Your task to perform on an android device: change timer sound Image 0: 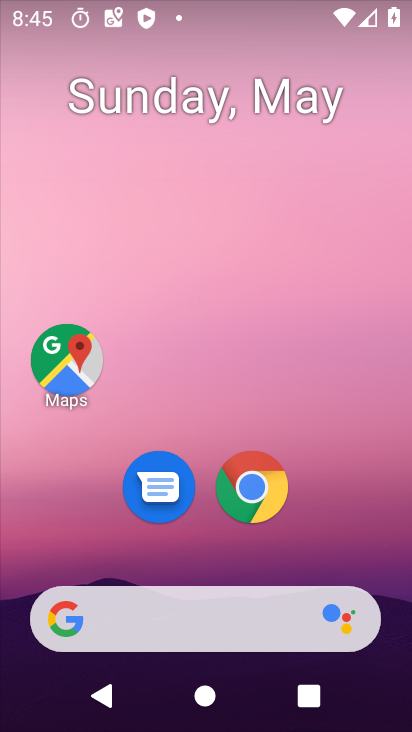
Step 0: drag from (155, 185) to (209, 74)
Your task to perform on an android device: change timer sound Image 1: 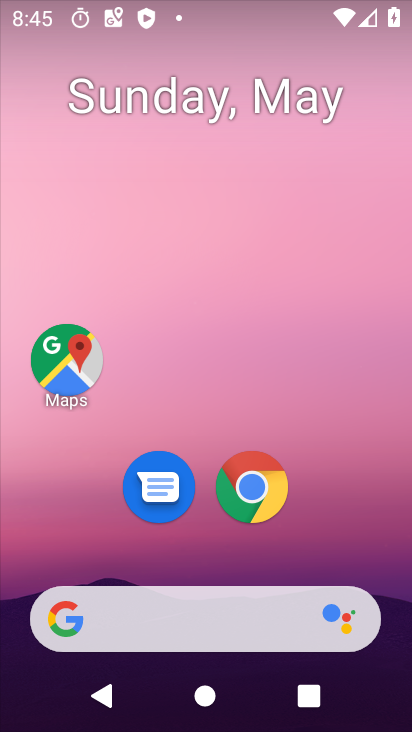
Step 1: drag from (139, 380) to (311, 6)
Your task to perform on an android device: change timer sound Image 2: 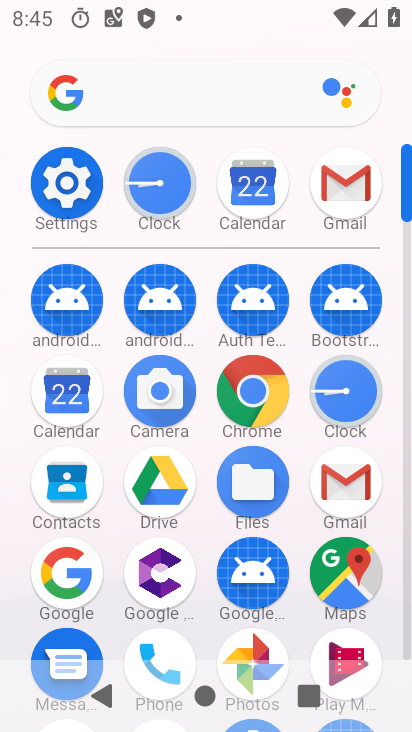
Step 2: click (79, 192)
Your task to perform on an android device: change timer sound Image 3: 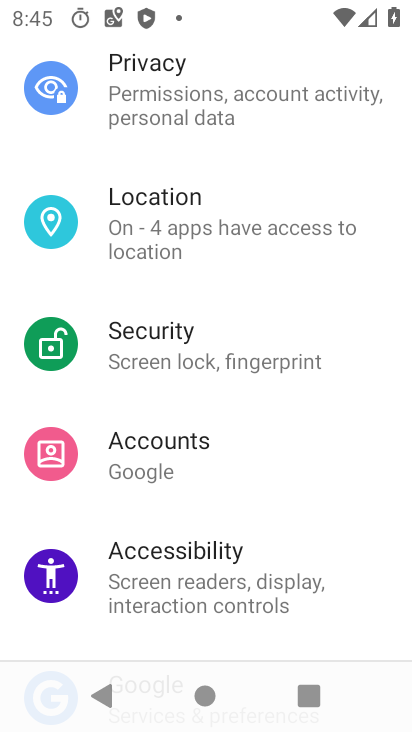
Step 3: press home button
Your task to perform on an android device: change timer sound Image 4: 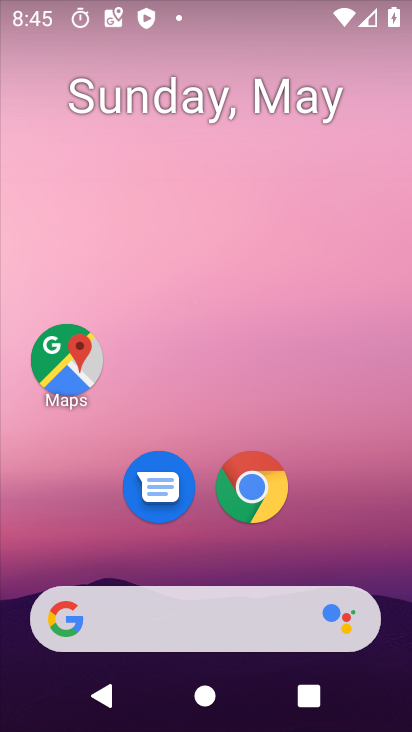
Step 4: drag from (61, 500) to (274, 146)
Your task to perform on an android device: change timer sound Image 5: 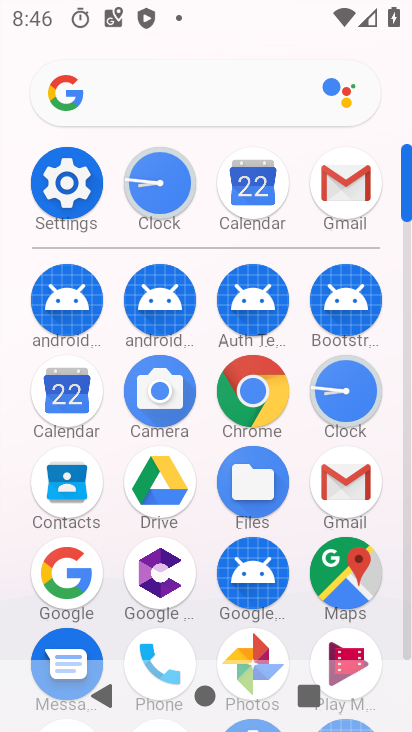
Step 5: click (339, 391)
Your task to perform on an android device: change timer sound Image 6: 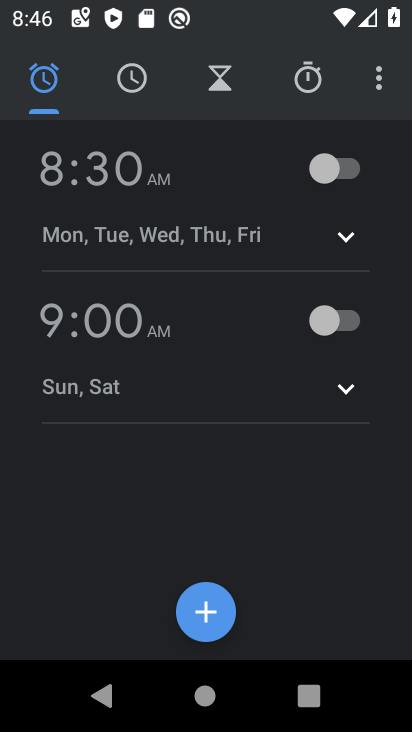
Step 6: click (384, 83)
Your task to perform on an android device: change timer sound Image 7: 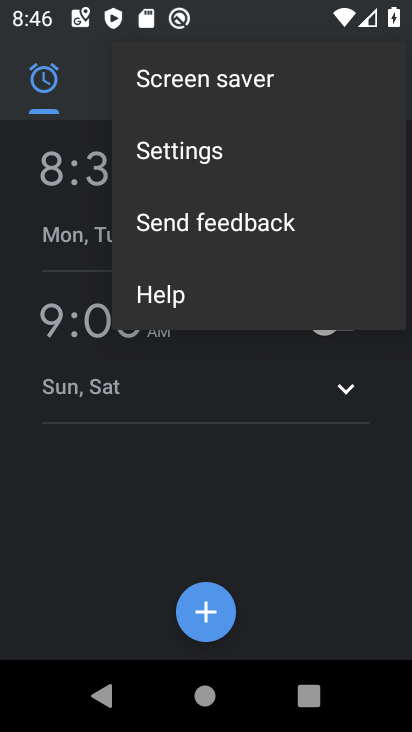
Step 7: click (143, 166)
Your task to perform on an android device: change timer sound Image 8: 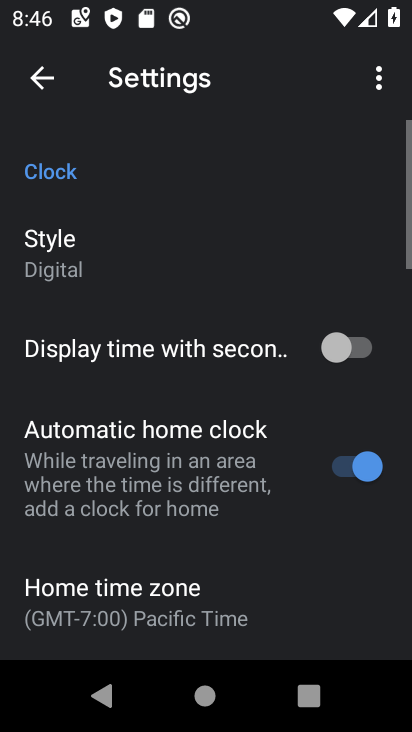
Step 8: drag from (121, 340) to (288, 79)
Your task to perform on an android device: change timer sound Image 9: 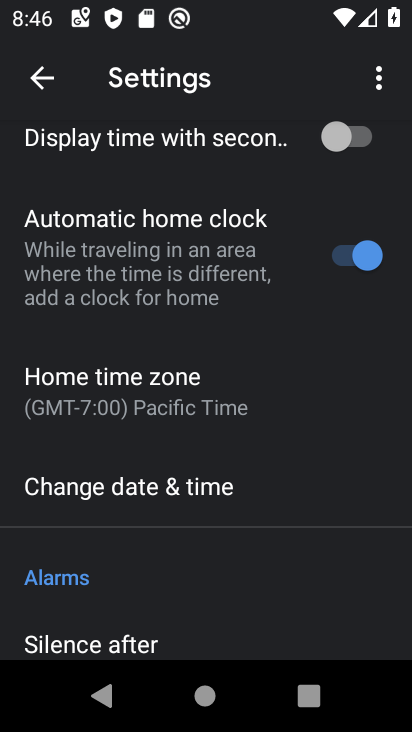
Step 9: drag from (112, 536) to (240, 138)
Your task to perform on an android device: change timer sound Image 10: 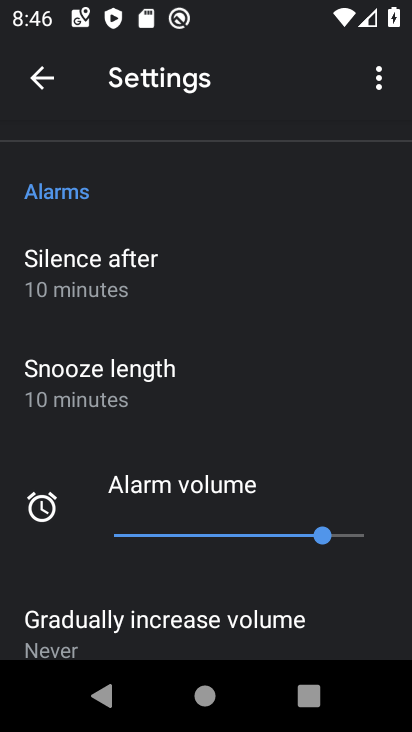
Step 10: click (372, 77)
Your task to perform on an android device: change timer sound Image 11: 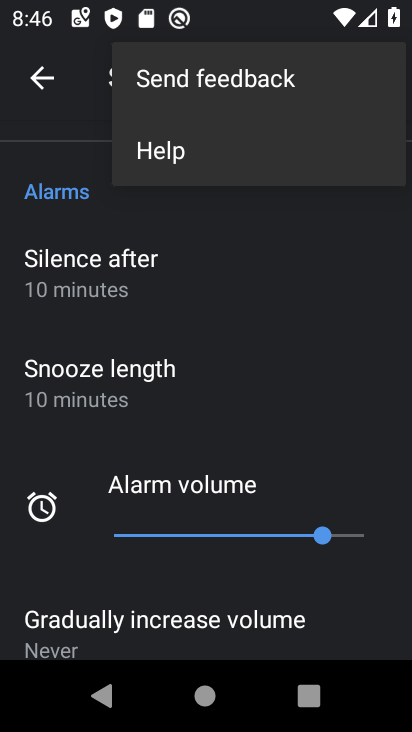
Step 11: press back button
Your task to perform on an android device: change timer sound Image 12: 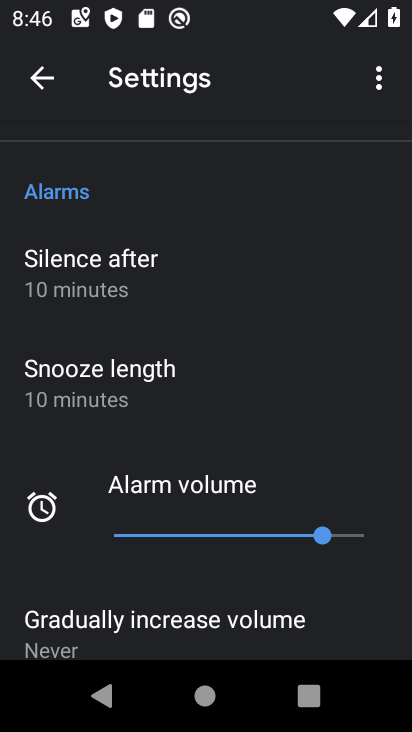
Step 12: drag from (10, 546) to (240, 126)
Your task to perform on an android device: change timer sound Image 13: 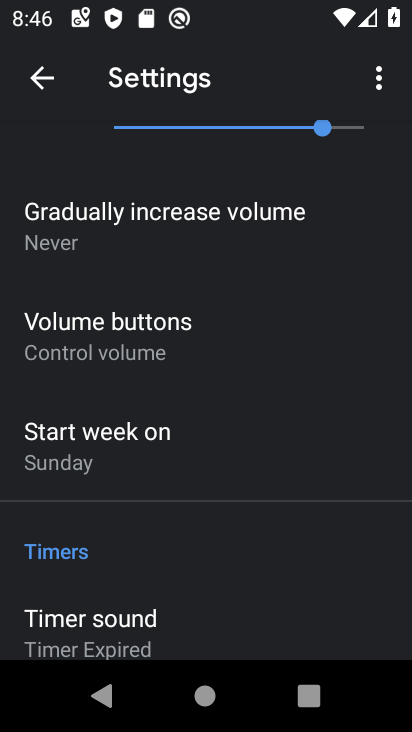
Step 13: click (50, 611)
Your task to perform on an android device: change timer sound Image 14: 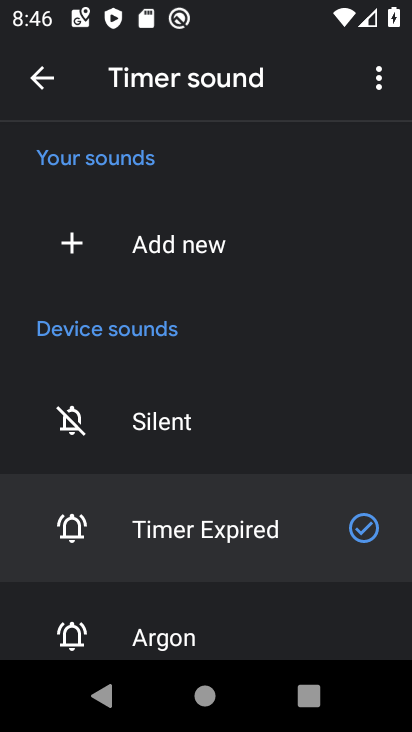
Step 14: click (85, 617)
Your task to perform on an android device: change timer sound Image 15: 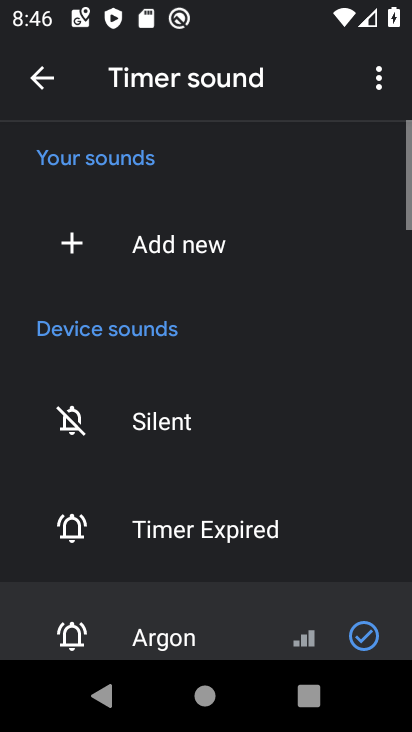
Step 15: task complete